Your task to perform on an android device: Do I have any events today? Image 0: 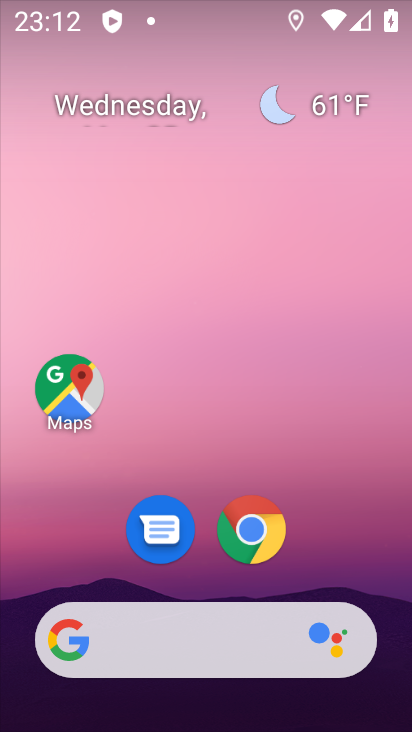
Step 0: drag from (373, 583) to (406, 140)
Your task to perform on an android device: Do I have any events today? Image 1: 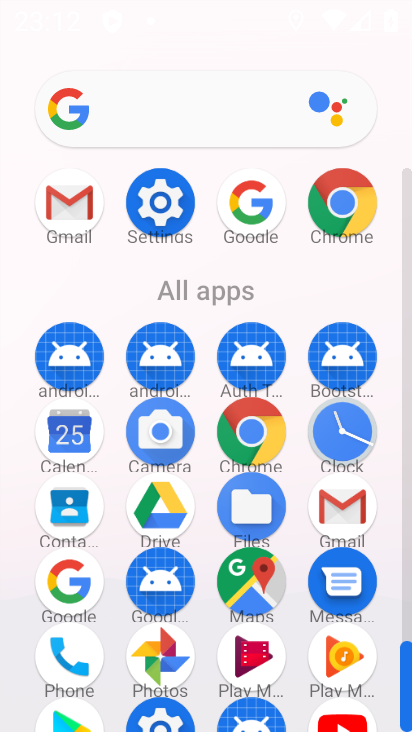
Step 1: click (63, 444)
Your task to perform on an android device: Do I have any events today? Image 2: 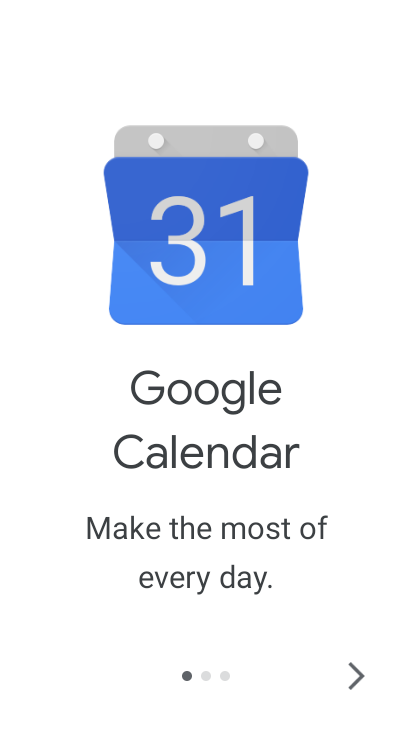
Step 2: click (368, 676)
Your task to perform on an android device: Do I have any events today? Image 3: 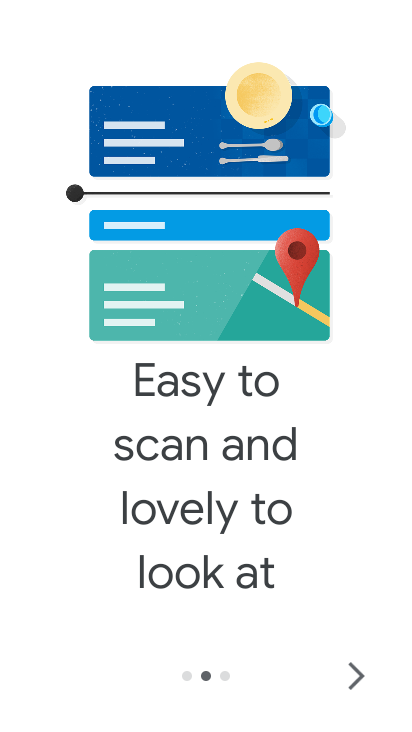
Step 3: click (356, 687)
Your task to perform on an android device: Do I have any events today? Image 4: 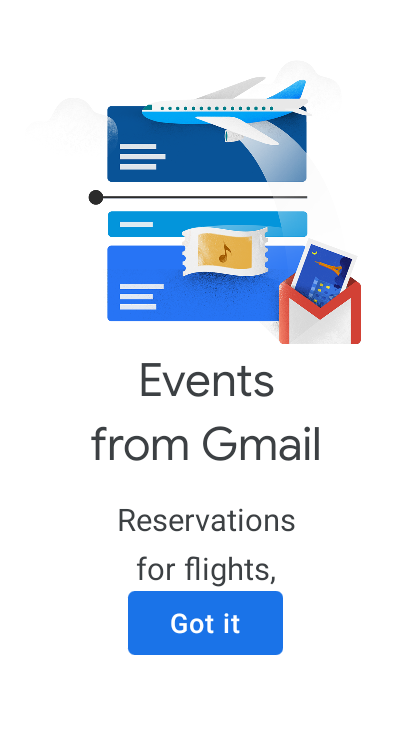
Step 4: click (255, 636)
Your task to perform on an android device: Do I have any events today? Image 5: 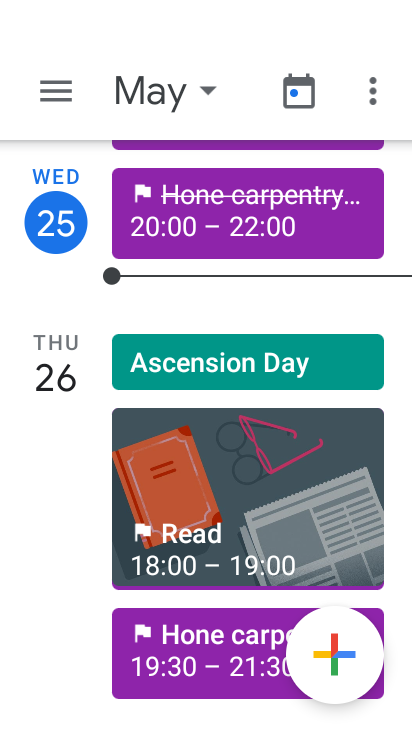
Step 5: click (232, 224)
Your task to perform on an android device: Do I have any events today? Image 6: 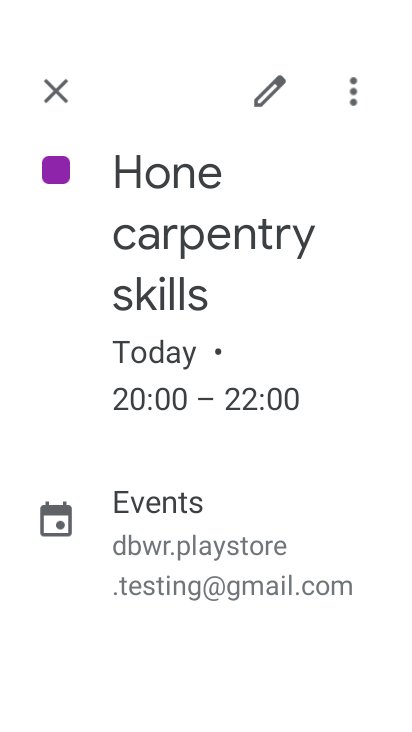
Step 6: task complete